Your task to perform on an android device: add a contact Image 0: 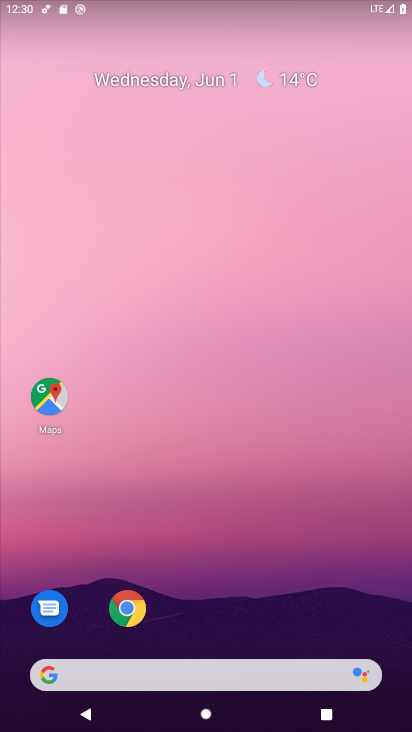
Step 0: drag from (193, 651) to (293, 220)
Your task to perform on an android device: add a contact Image 1: 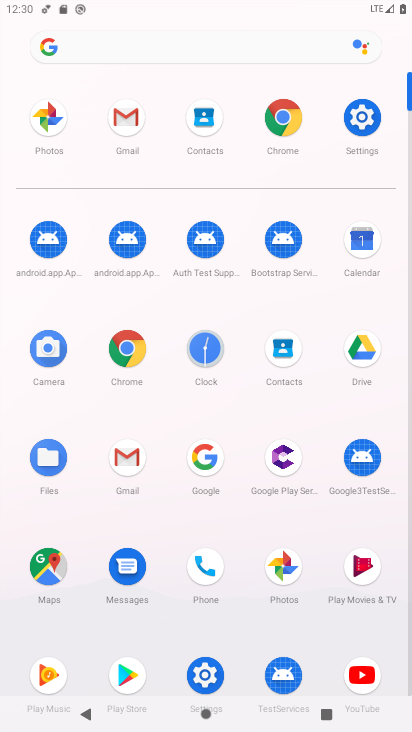
Step 1: click (281, 363)
Your task to perform on an android device: add a contact Image 2: 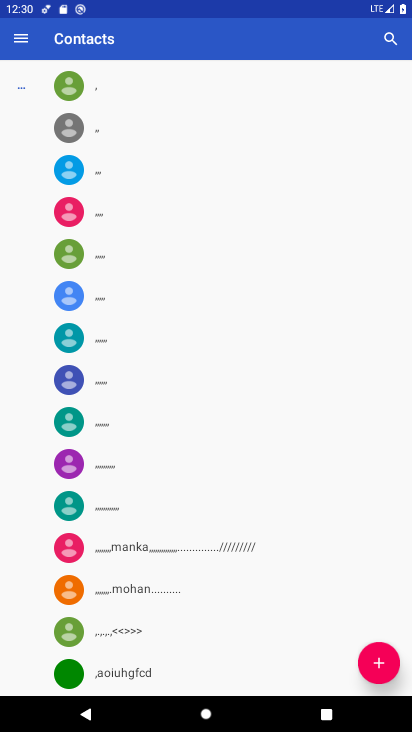
Step 2: click (379, 669)
Your task to perform on an android device: add a contact Image 3: 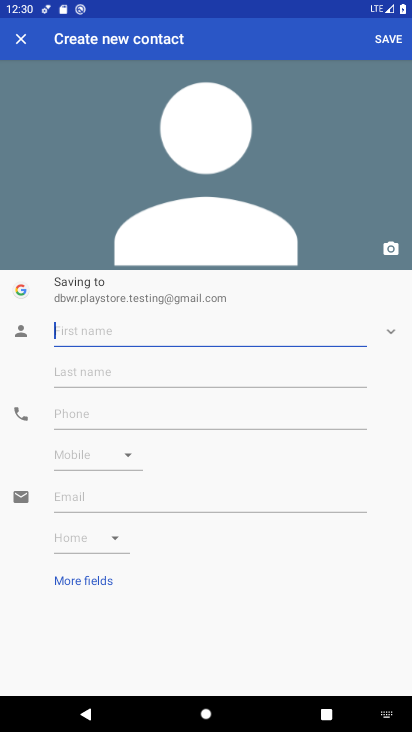
Step 3: type "vliei"
Your task to perform on an android device: add a contact Image 4: 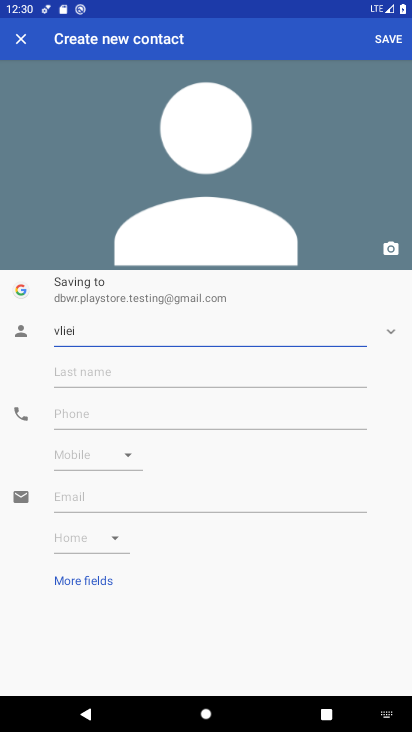
Step 4: click (383, 37)
Your task to perform on an android device: add a contact Image 5: 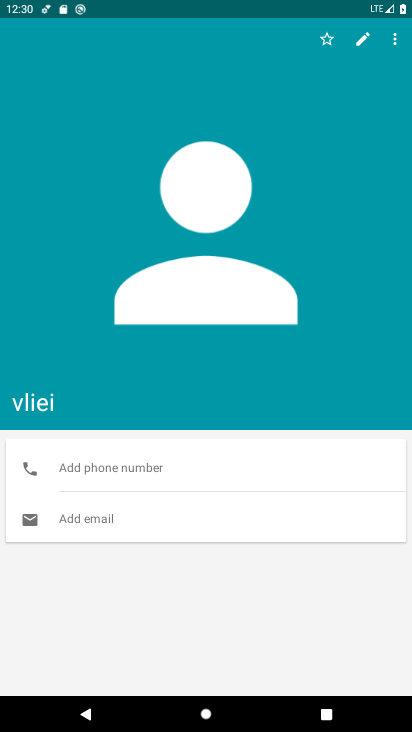
Step 5: task complete